Your task to perform on an android device: search for starred emails in the gmail app Image 0: 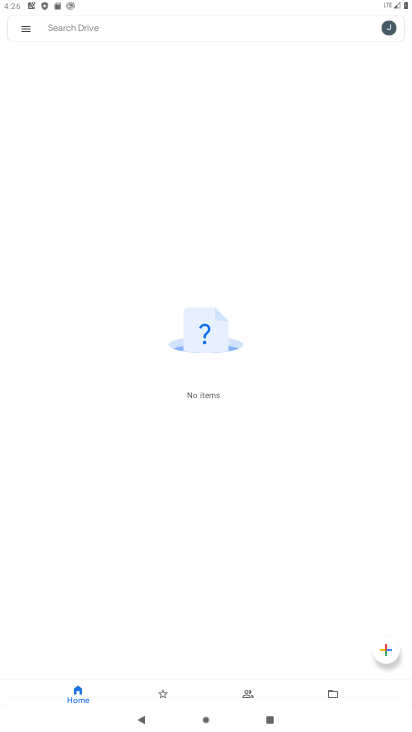
Step 0: press back button
Your task to perform on an android device: search for starred emails in the gmail app Image 1: 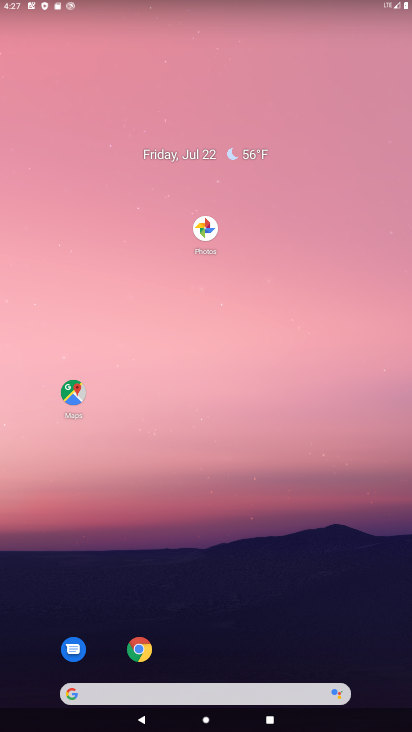
Step 1: drag from (157, 141) to (147, 18)
Your task to perform on an android device: search for starred emails in the gmail app Image 2: 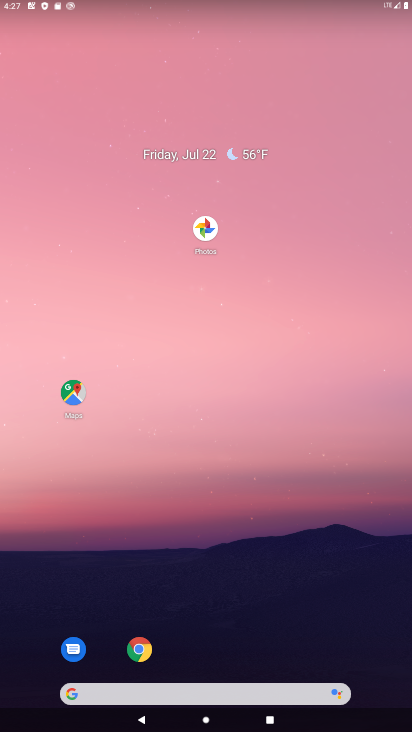
Step 2: drag from (270, 619) to (246, 345)
Your task to perform on an android device: search for starred emails in the gmail app Image 3: 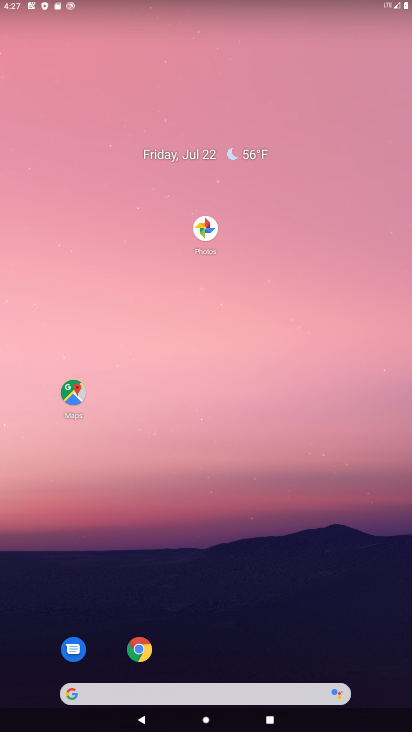
Step 3: click (167, 12)
Your task to perform on an android device: search for starred emails in the gmail app Image 4: 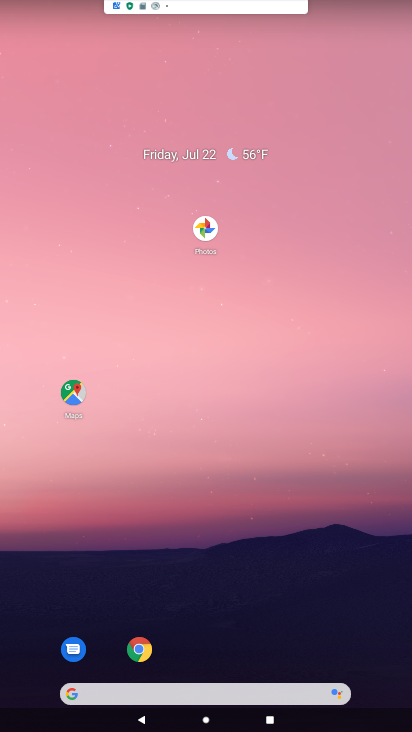
Step 4: click (123, 100)
Your task to perform on an android device: search for starred emails in the gmail app Image 5: 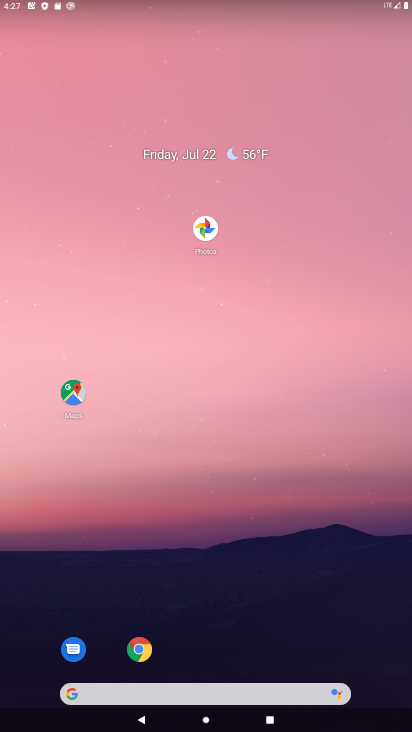
Step 5: drag from (169, 348) to (167, 228)
Your task to perform on an android device: search for starred emails in the gmail app Image 6: 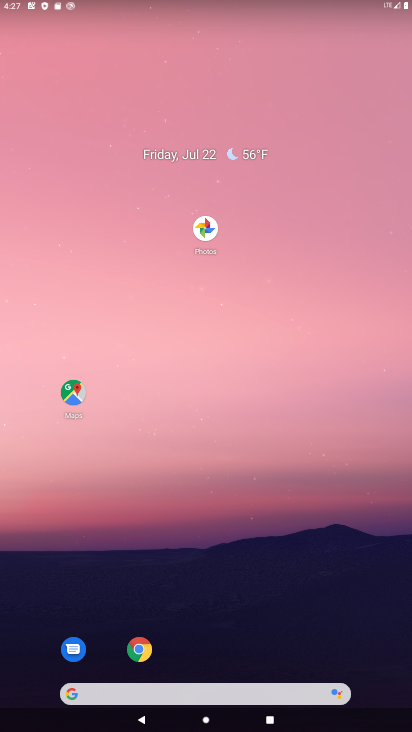
Step 6: drag from (201, 270) to (150, 99)
Your task to perform on an android device: search for starred emails in the gmail app Image 7: 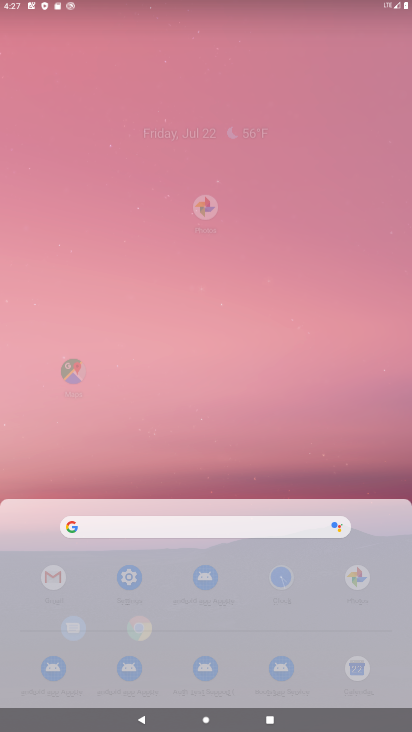
Step 7: drag from (146, 260) to (131, 74)
Your task to perform on an android device: search for starred emails in the gmail app Image 8: 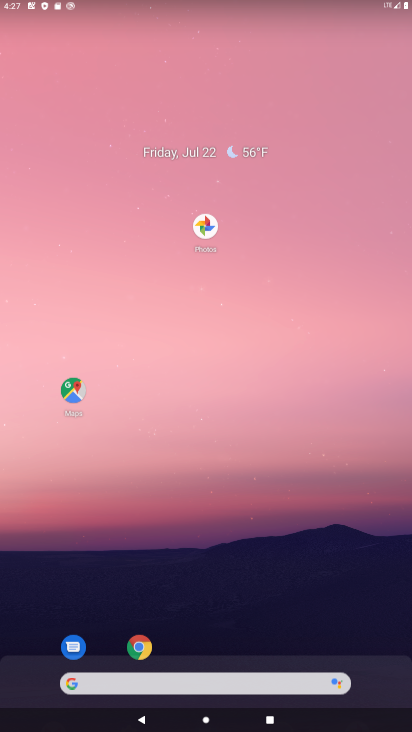
Step 8: drag from (165, 292) to (157, 118)
Your task to perform on an android device: search for starred emails in the gmail app Image 9: 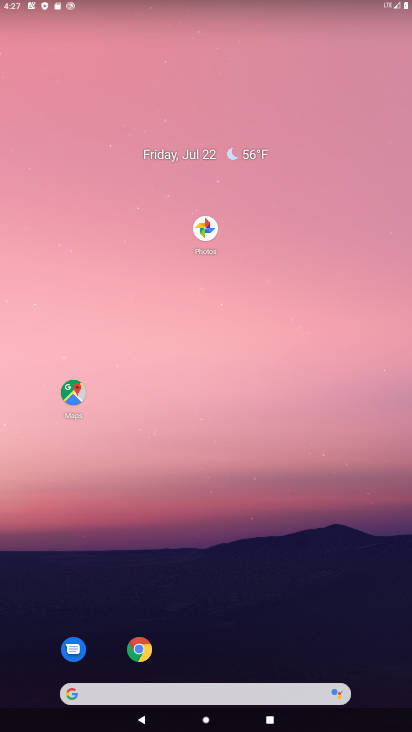
Step 9: drag from (107, 186) to (97, 57)
Your task to perform on an android device: search for starred emails in the gmail app Image 10: 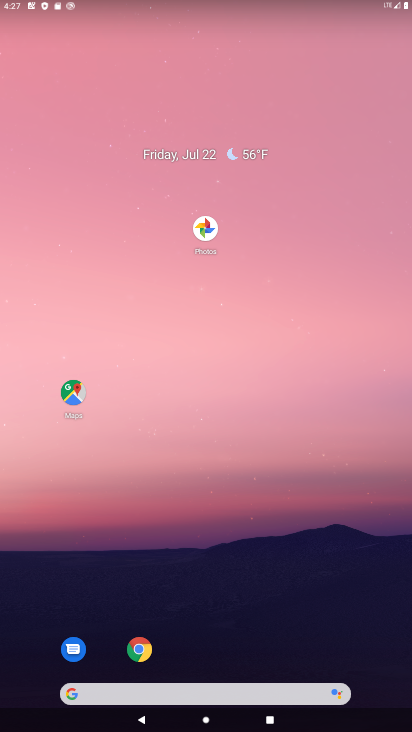
Step 10: drag from (186, 431) to (190, 125)
Your task to perform on an android device: search for starred emails in the gmail app Image 11: 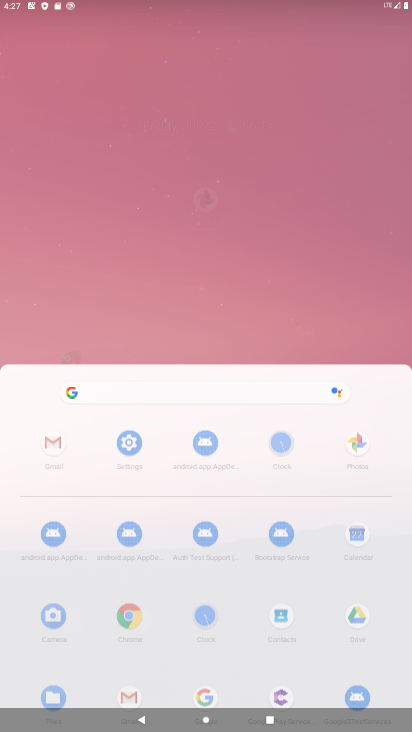
Step 11: drag from (237, 404) to (167, 119)
Your task to perform on an android device: search for starred emails in the gmail app Image 12: 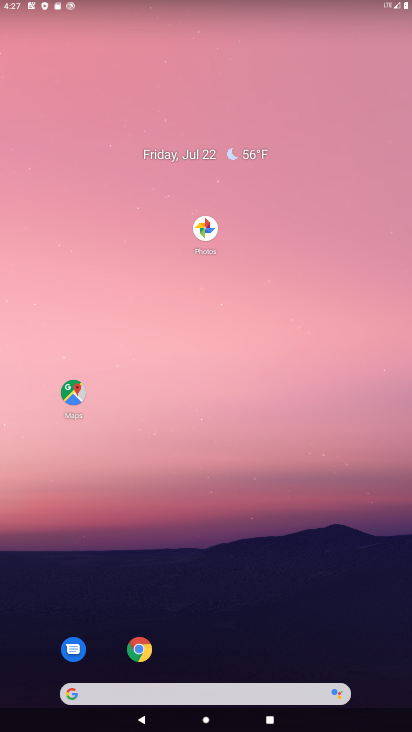
Step 12: drag from (171, 118) to (175, 16)
Your task to perform on an android device: search for starred emails in the gmail app Image 13: 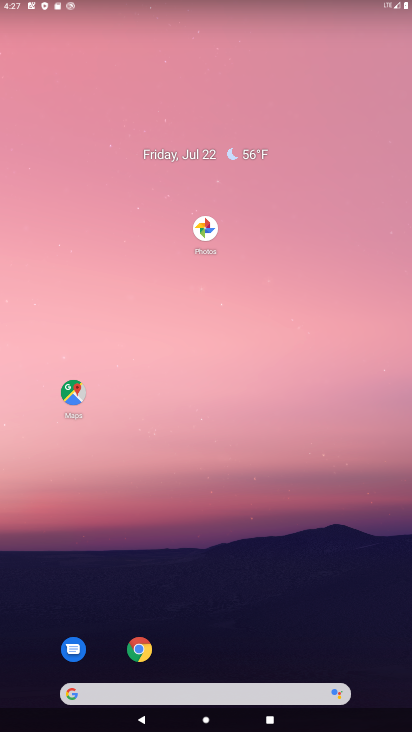
Step 13: click (207, 103)
Your task to perform on an android device: search for starred emails in the gmail app Image 14: 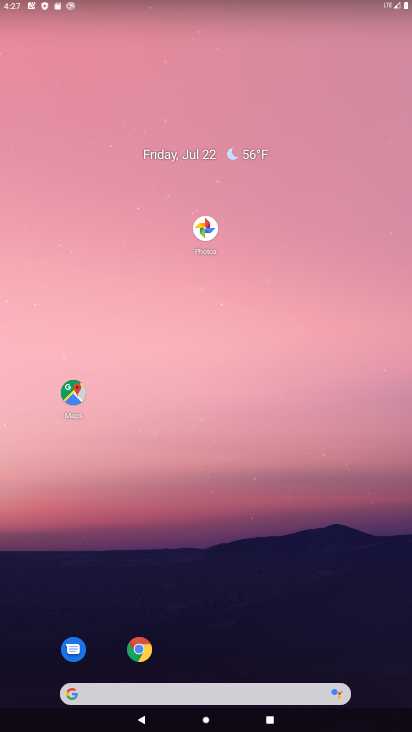
Step 14: drag from (236, 390) to (185, 86)
Your task to perform on an android device: search for starred emails in the gmail app Image 15: 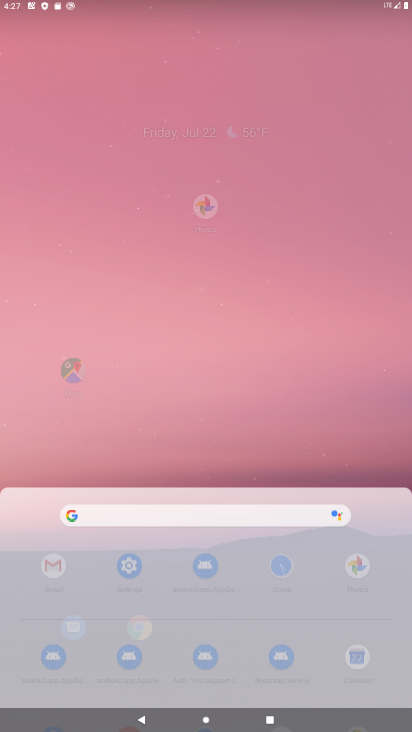
Step 15: drag from (252, 447) to (210, 162)
Your task to perform on an android device: search for starred emails in the gmail app Image 16: 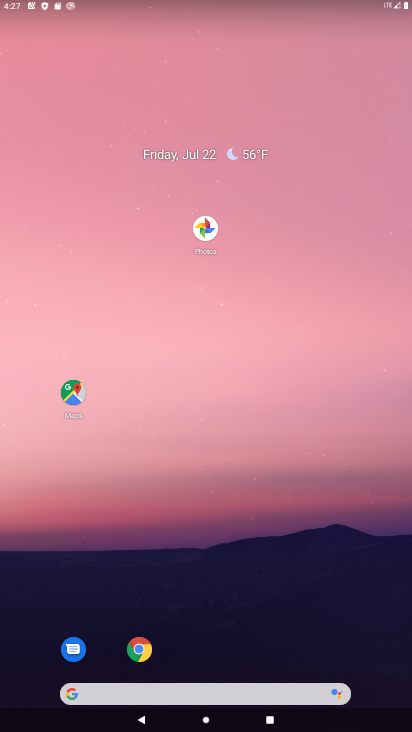
Step 16: drag from (141, 211) to (119, 119)
Your task to perform on an android device: search for starred emails in the gmail app Image 17: 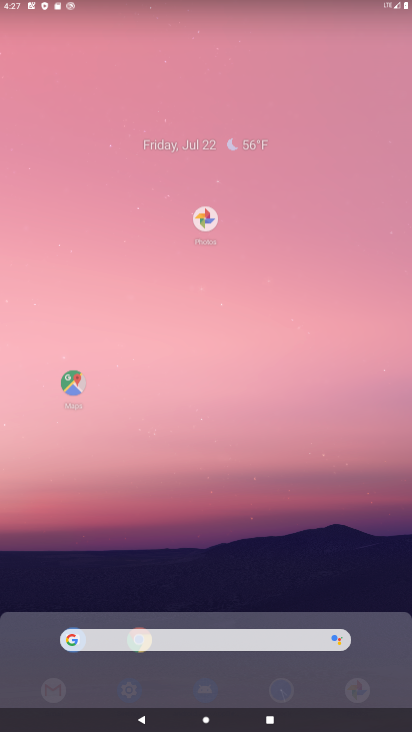
Step 17: drag from (139, 136) to (156, 88)
Your task to perform on an android device: search for starred emails in the gmail app Image 18: 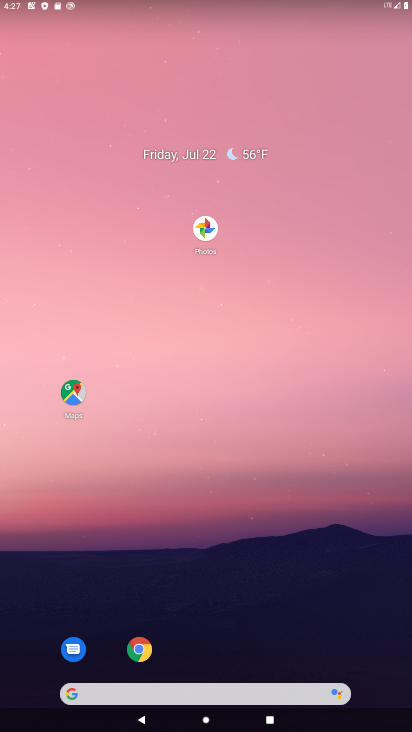
Step 18: drag from (137, 405) to (108, 195)
Your task to perform on an android device: search for starred emails in the gmail app Image 19: 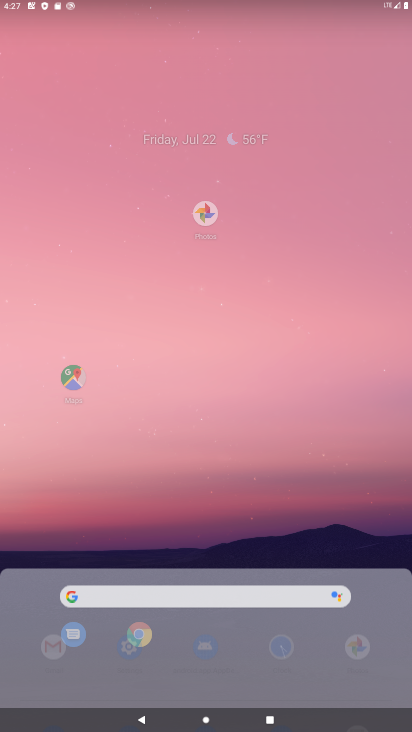
Step 19: drag from (192, 469) to (133, 94)
Your task to perform on an android device: search for starred emails in the gmail app Image 20: 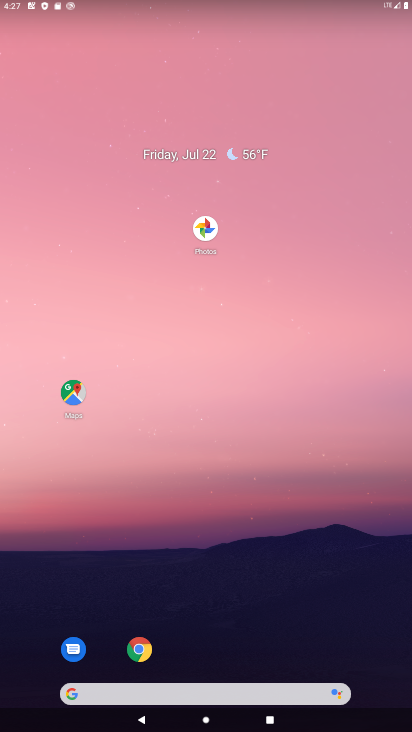
Step 20: click (166, 95)
Your task to perform on an android device: search for starred emails in the gmail app Image 21: 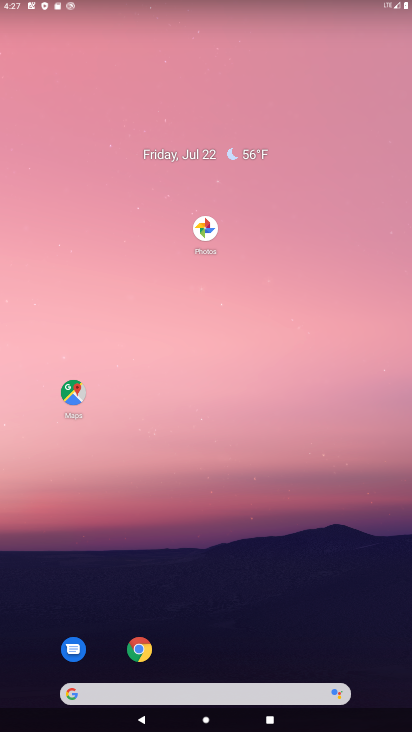
Step 21: drag from (156, 212) to (121, 70)
Your task to perform on an android device: search for starred emails in the gmail app Image 22: 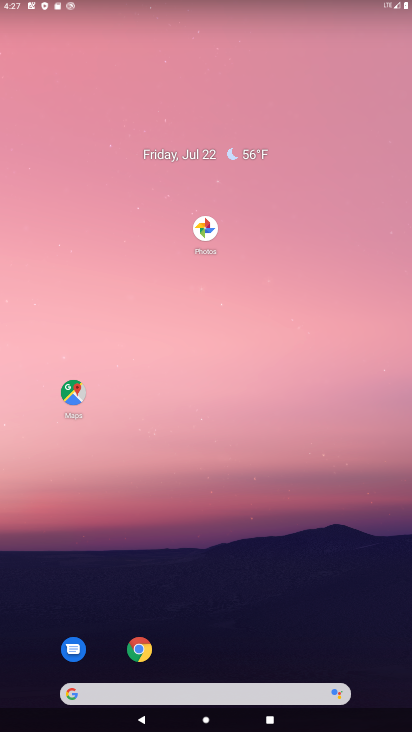
Step 22: drag from (190, 290) to (191, 29)
Your task to perform on an android device: search for starred emails in the gmail app Image 23: 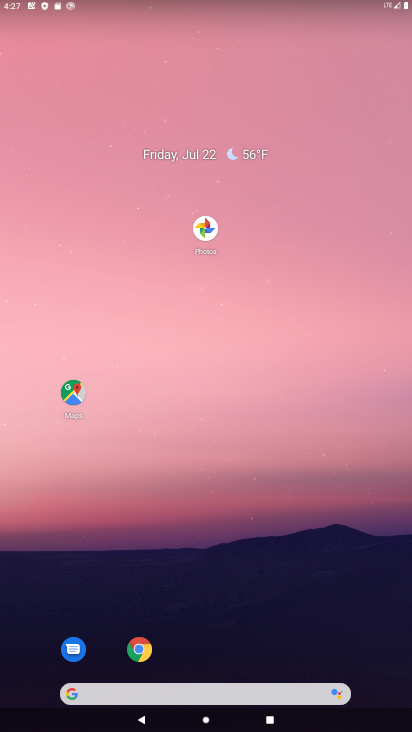
Step 23: click (192, 97)
Your task to perform on an android device: search for starred emails in the gmail app Image 24: 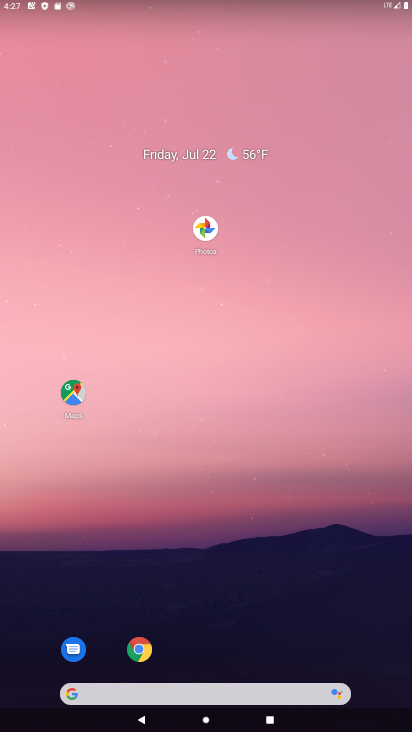
Step 24: drag from (243, 483) to (220, 226)
Your task to perform on an android device: search for starred emails in the gmail app Image 25: 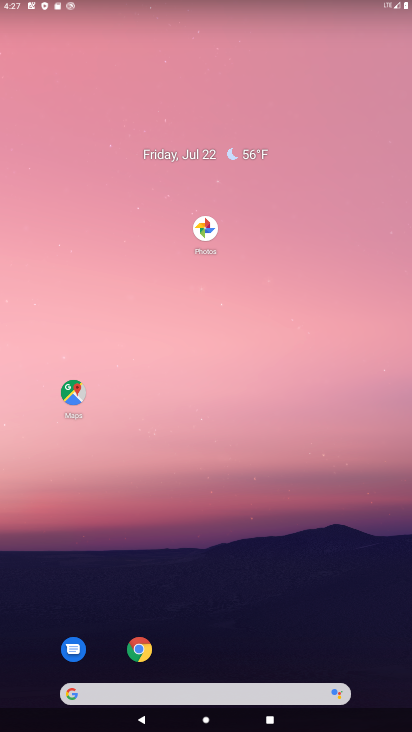
Step 25: drag from (231, 452) to (167, 51)
Your task to perform on an android device: search for starred emails in the gmail app Image 26: 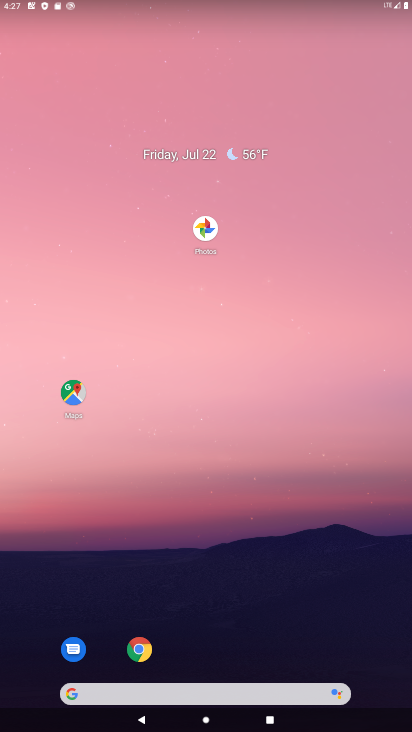
Step 26: drag from (231, 437) to (195, 16)
Your task to perform on an android device: search for starred emails in the gmail app Image 27: 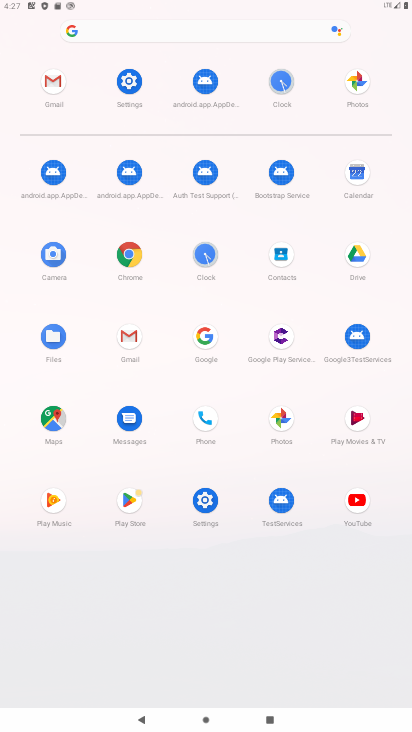
Step 27: drag from (223, 177) to (145, 7)
Your task to perform on an android device: search for starred emails in the gmail app Image 28: 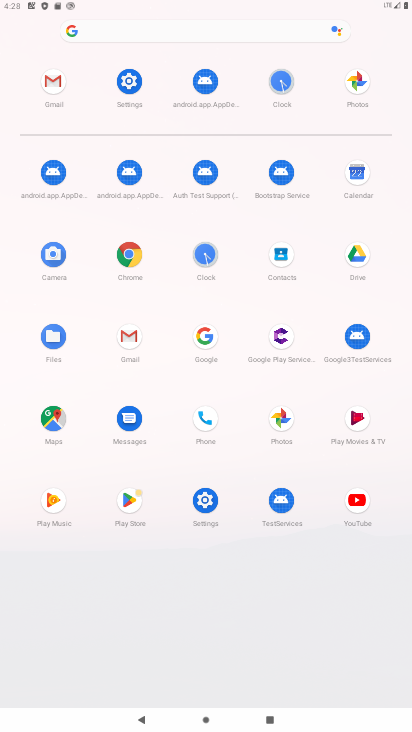
Step 28: click (123, 344)
Your task to perform on an android device: search for starred emails in the gmail app Image 29: 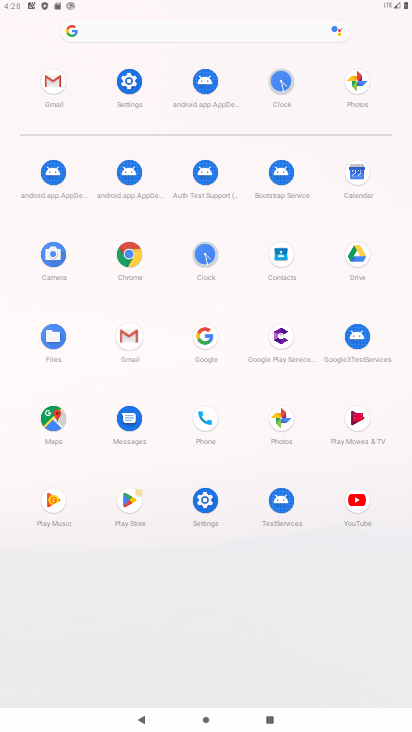
Step 29: click (119, 338)
Your task to perform on an android device: search for starred emails in the gmail app Image 30: 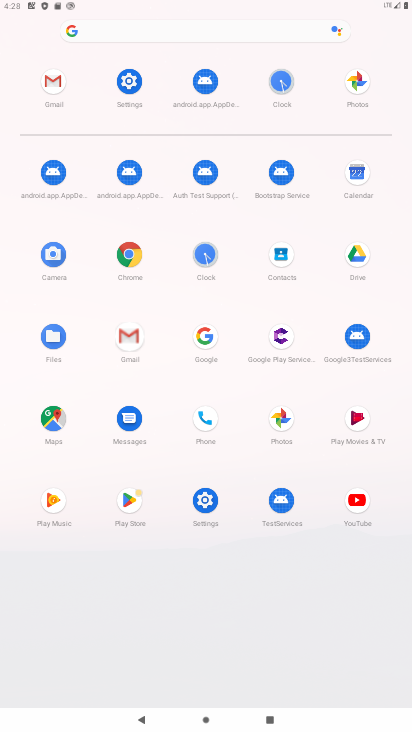
Step 30: click (119, 336)
Your task to perform on an android device: search for starred emails in the gmail app Image 31: 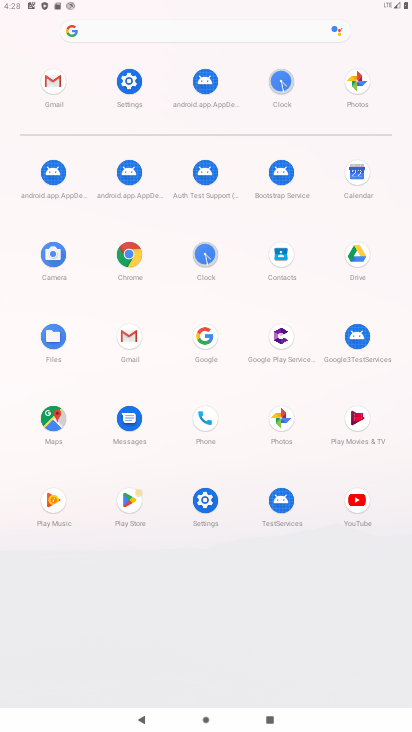
Step 31: click (125, 336)
Your task to perform on an android device: search for starred emails in the gmail app Image 32: 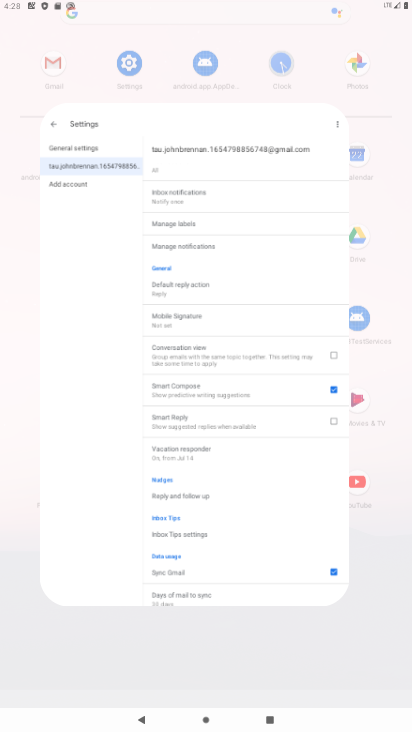
Step 32: click (125, 336)
Your task to perform on an android device: search for starred emails in the gmail app Image 33: 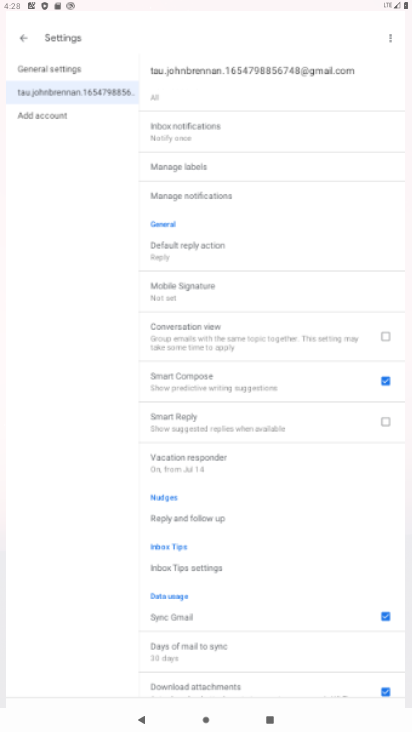
Step 33: click (125, 336)
Your task to perform on an android device: search for starred emails in the gmail app Image 34: 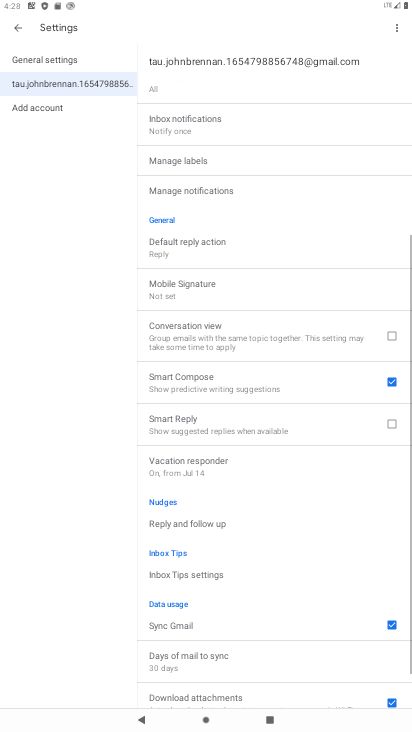
Step 34: click (125, 336)
Your task to perform on an android device: search for starred emails in the gmail app Image 35: 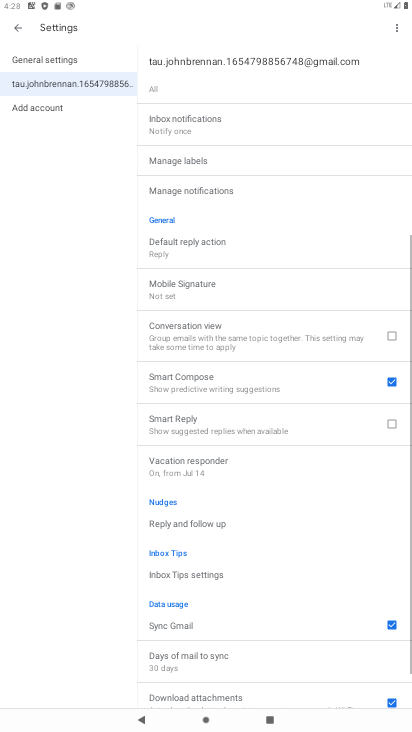
Step 35: click (136, 317)
Your task to perform on an android device: search for starred emails in the gmail app Image 36: 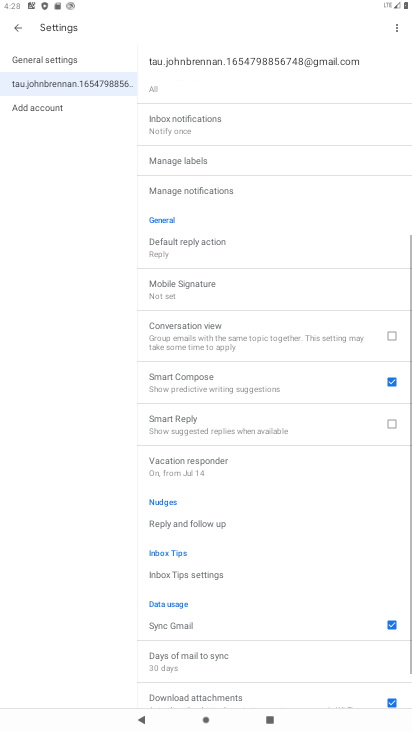
Step 36: click (136, 317)
Your task to perform on an android device: search for starred emails in the gmail app Image 37: 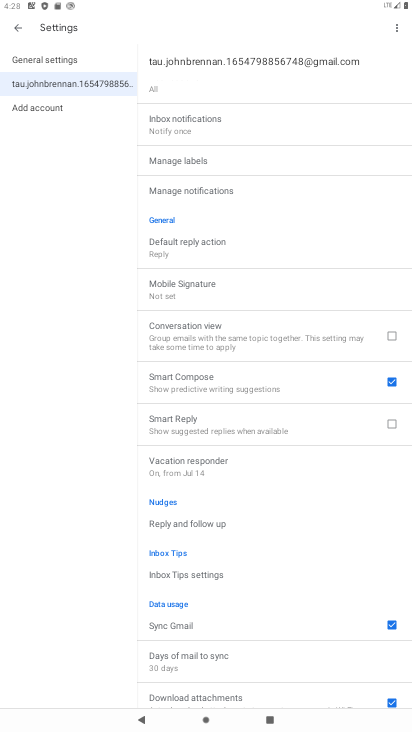
Step 37: click (139, 34)
Your task to perform on an android device: search for starred emails in the gmail app Image 38: 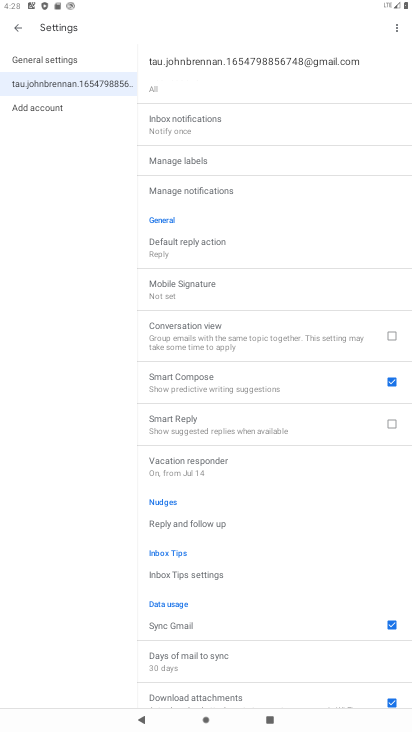
Step 38: click (154, 137)
Your task to perform on an android device: search for starred emails in the gmail app Image 39: 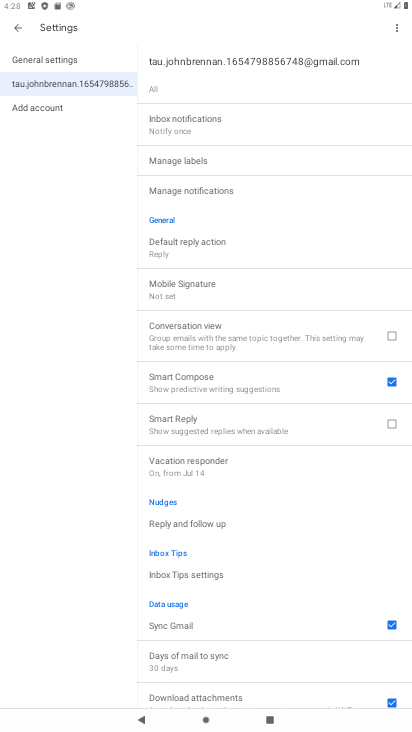
Step 39: drag from (184, 368) to (203, 184)
Your task to perform on an android device: search for starred emails in the gmail app Image 40: 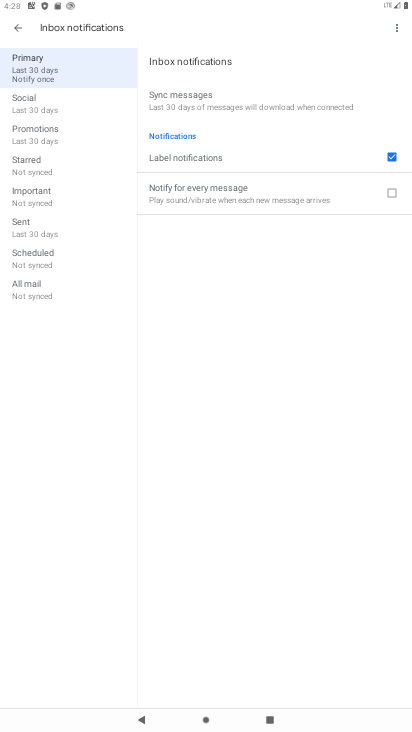
Step 40: drag from (195, 364) to (215, 83)
Your task to perform on an android device: search for starred emails in the gmail app Image 41: 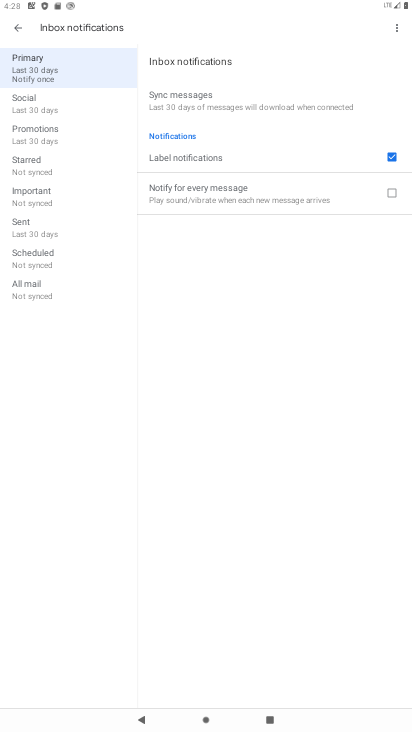
Step 41: drag from (243, 425) to (239, 391)
Your task to perform on an android device: search for starred emails in the gmail app Image 42: 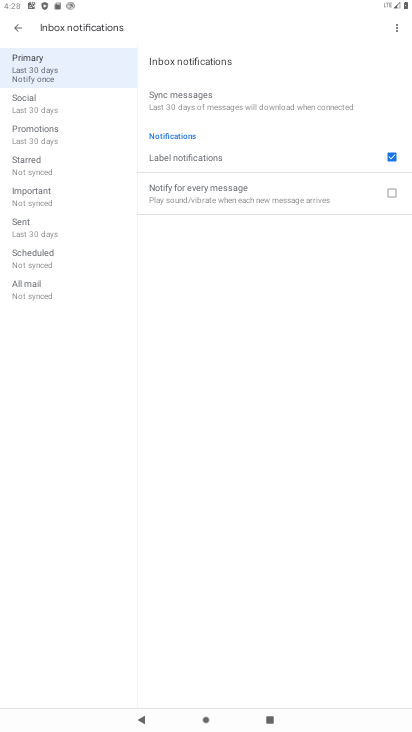
Step 42: click (16, 33)
Your task to perform on an android device: search for starred emails in the gmail app Image 43: 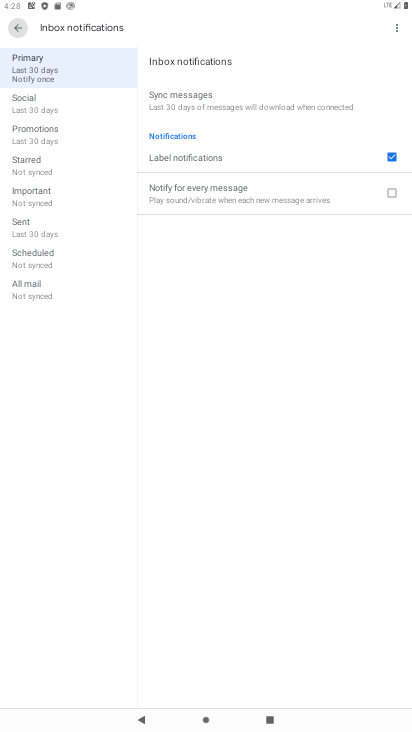
Step 43: click (27, 26)
Your task to perform on an android device: search for starred emails in the gmail app Image 44: 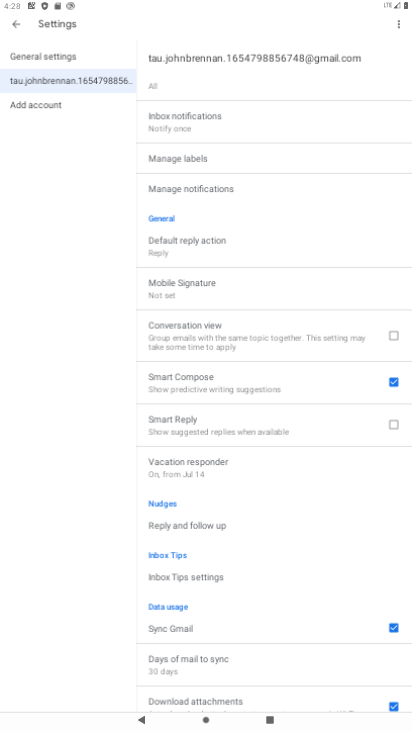
Step 44: click (27, 26)
Your task to perform on an android device: search for starred emails in the gmail app Image 45: 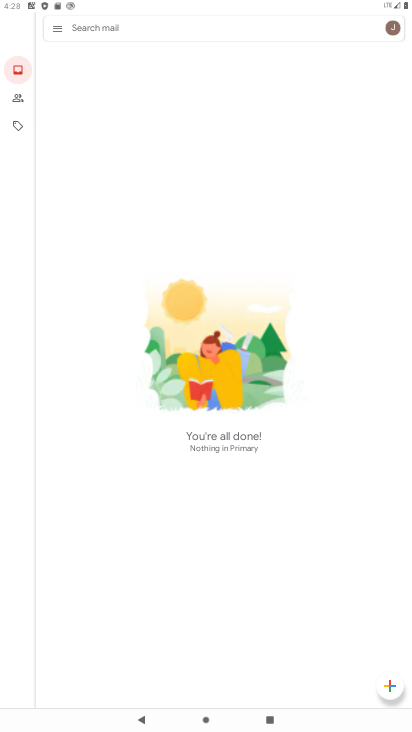
Step 45: click (54, 25)
Your task to perform on an android device: search for starred emails in the gmail app Image 46: 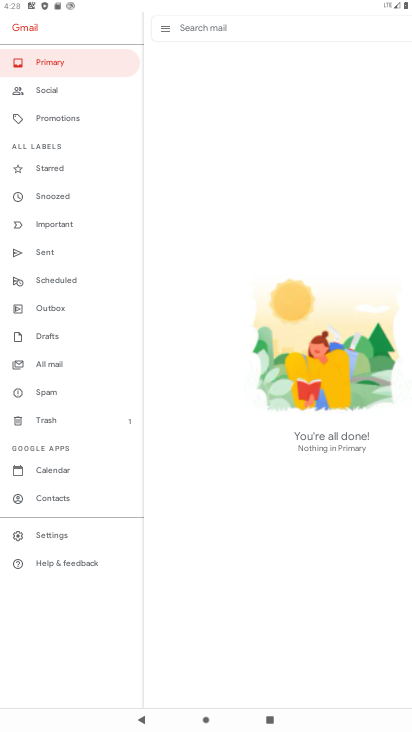
Step 46: click (56, 25)
Your task to perform on an android device: search for starred emails in the gmail app Image 47: 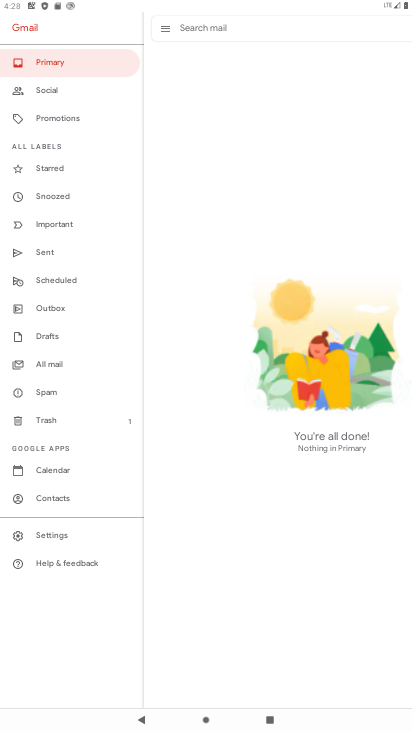
Step 47: click (56, 25)
Your task to perform on an android device: search for starred emails in the gmail app Image 48: 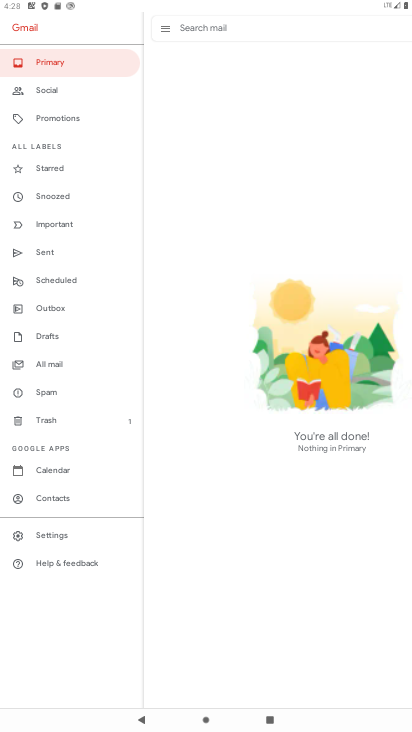
Step 48: click (184, 8)
Your task to perform on an android device: search for starred emails in the gmail app Image 49: 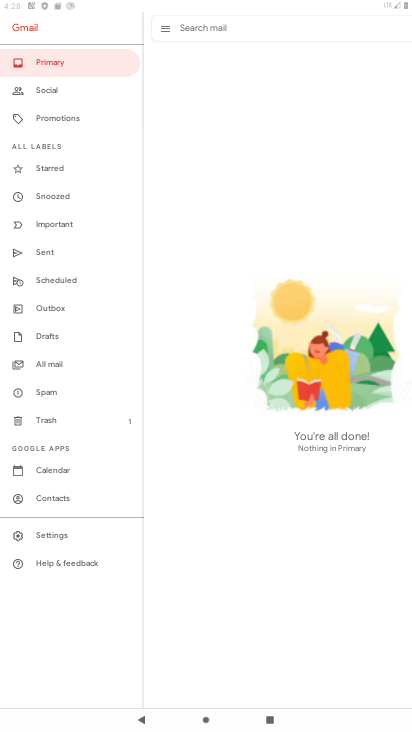
Step 49: click (79, 66)
Your task to perform on an android device: search for starred emails in the gmail app Image 50: 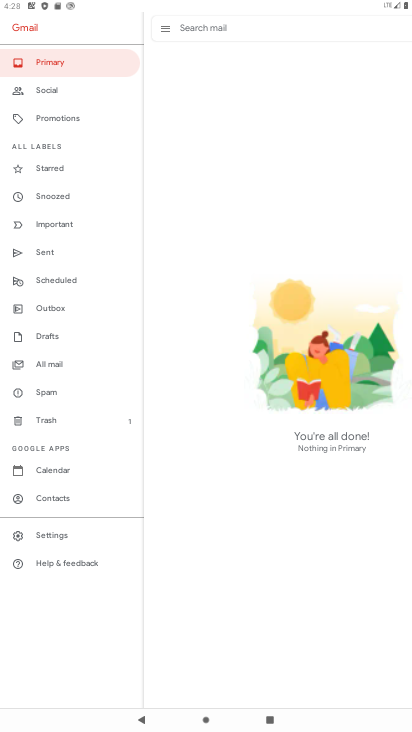
Step 50: drag from (202, 136) to (187, 33)
Your task to perform on an android device: search for starred emails in the gmail app Image 51: 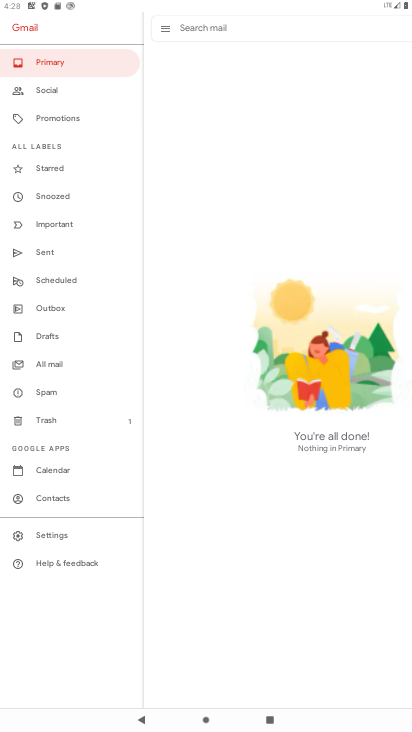
Step 51: drag from (200, 144) to (180, 14)
Your task to perform on an android device: search for starred emails in the gmail app Image 52: 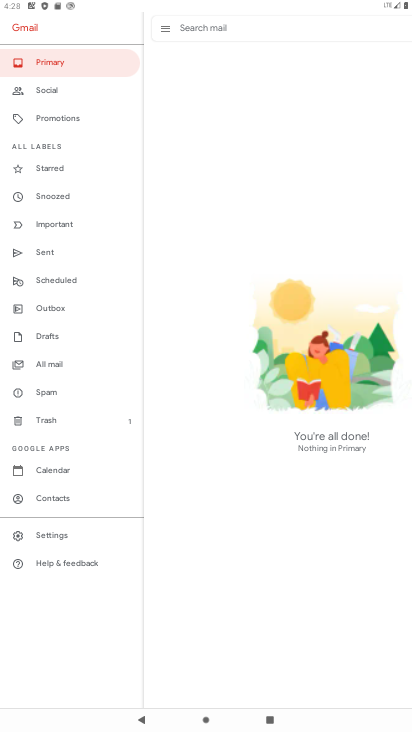
Step 52: drag from (232, 193) to (146, 126)
Your task to perform on an android device: search for starred emails in the gmail app Image 53: 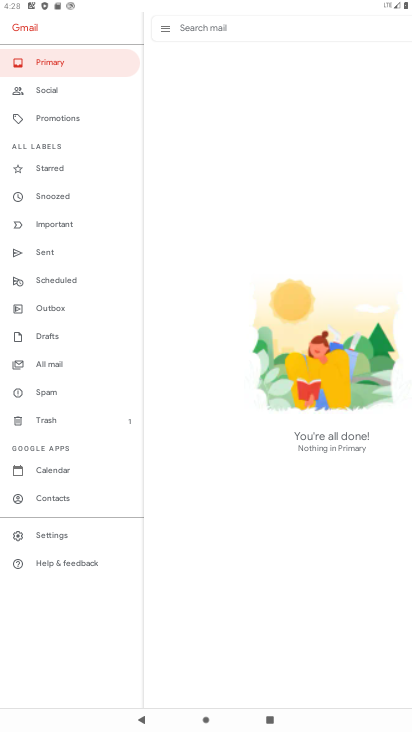
Step 53: click (51, 167)
Your task to perform on an android device: search for starred emails in the gmail app Image 54: 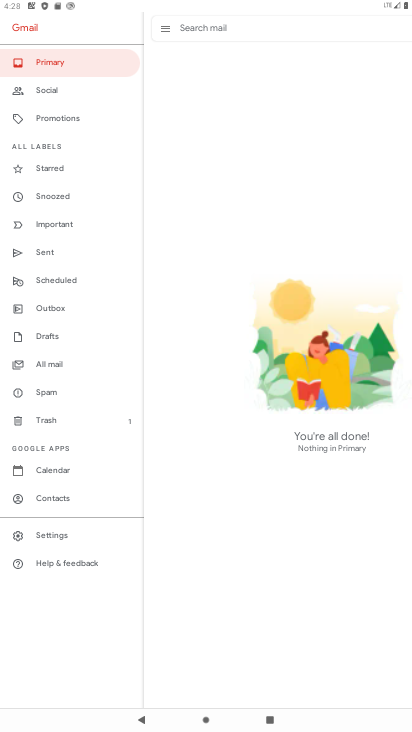
Step 54: click (51, 167)
Your task to perform on an android device: search for starred emails in the gmail app Image 55: 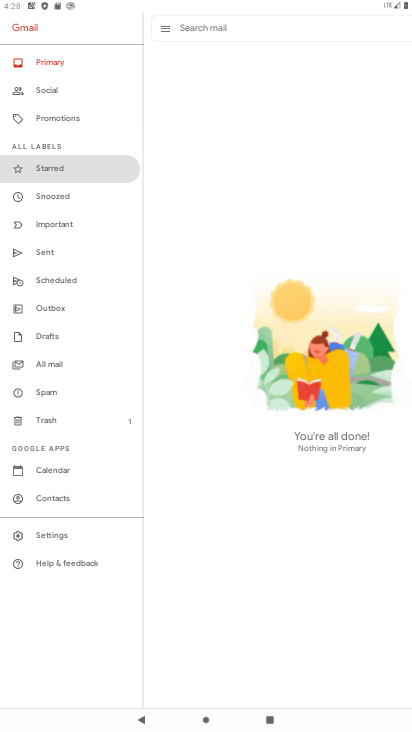
Step 55: click (59, 171)
Your task to perform on an android device: search for starred emails in the gmail app Image 56: 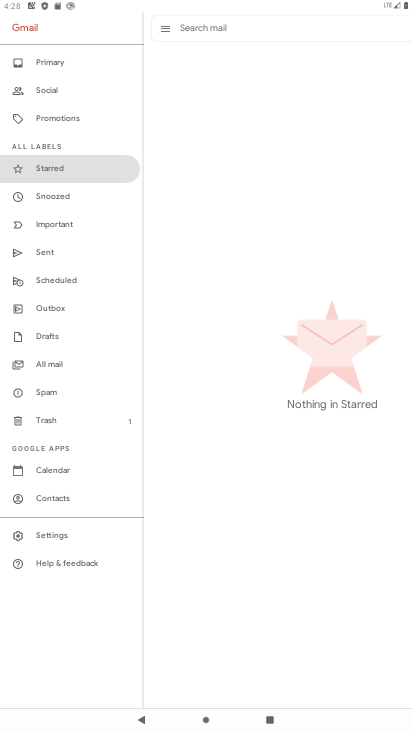
Step 56: click (68, 167)
Your task to perform on an android device: search for starred emails in the gmail app Image 57: 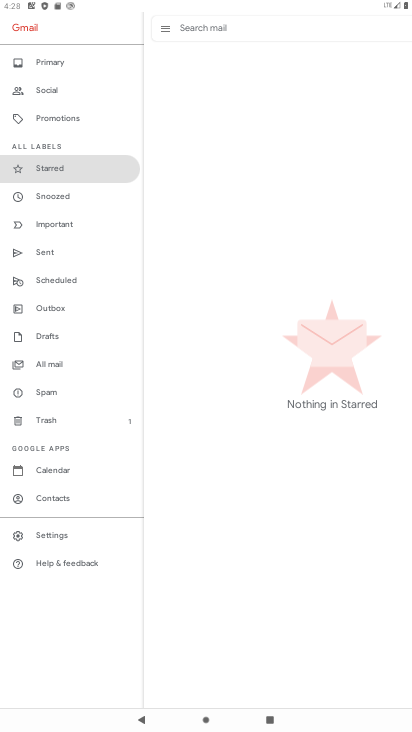
Step 57: task complete